Your task to perform on an android device: change the upload size in google photos Image 0: 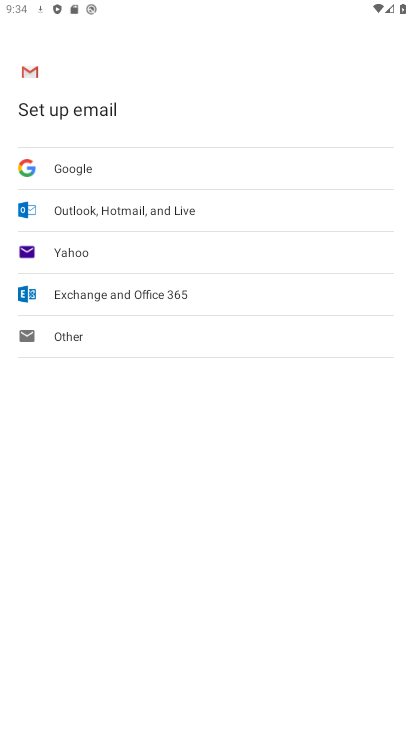
Step 0: press home button
Your task to perform on an android device: change the upload size in google photos Image 1: 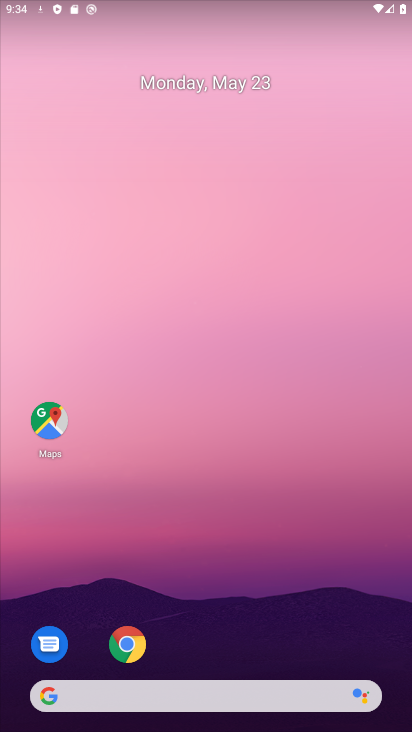
Step 1: drag from (250, 719) to (172, 93)
Your task to perform on an android device: change the upload size in google photos Image 2: 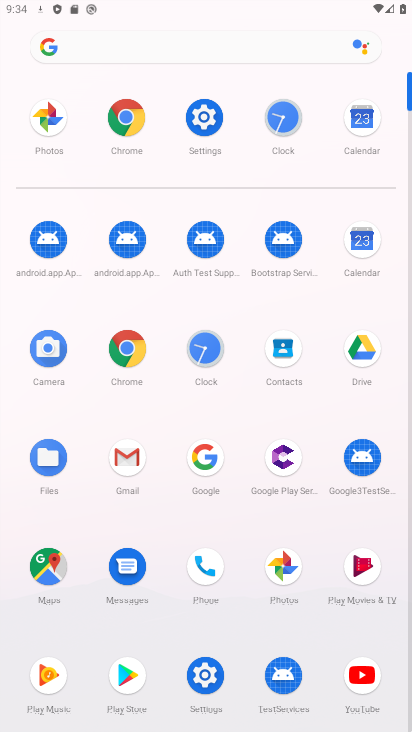
Step 2: click (50, 128)
Your task to perform on an android device: change the upload size in google photos Image 3: 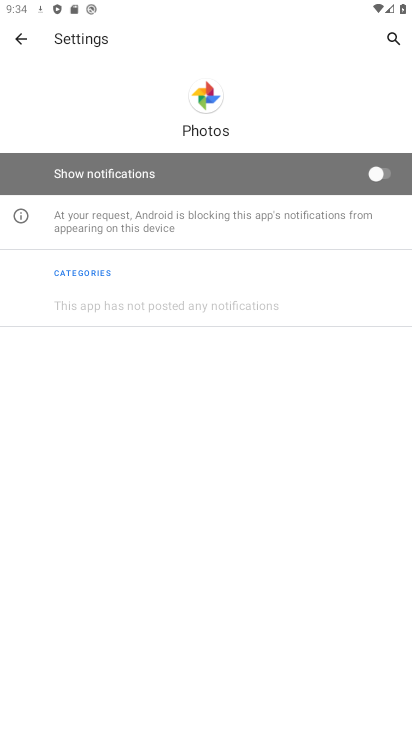
Step 3: click (9, 40)
Your task to perform on an android device: change the upload size in google photos Image 4: 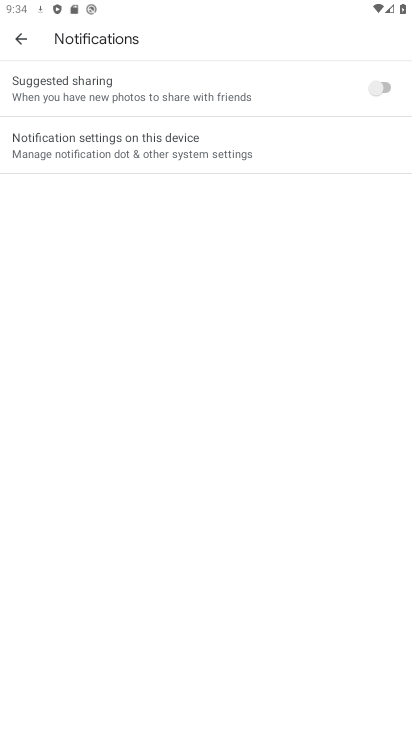
Step 4: click (32, 39)
Your task to perform on an android device: change the upload size in google photos Image 5: 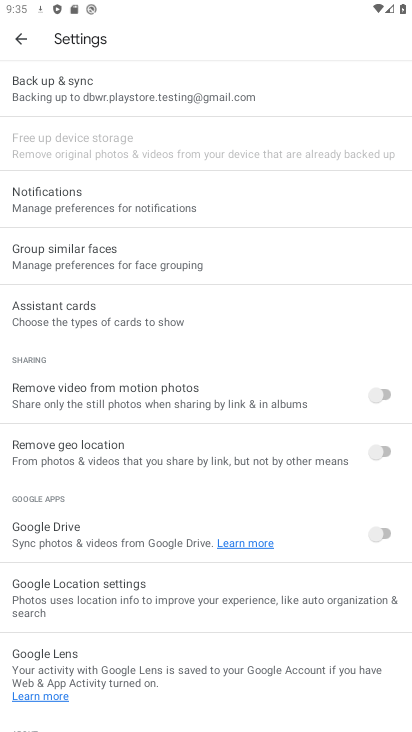
Step 5: click (115, 105)
Your task to perform on an android device: change the upload size in google photos Image 6: 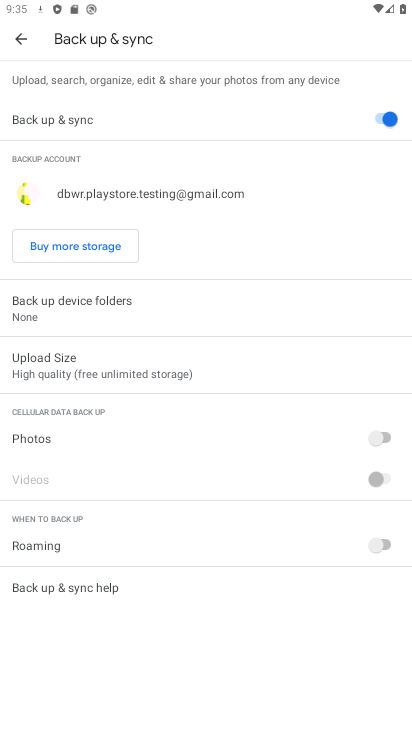
Step 6: click (79, 364)
Your task to perform on an android device: change the upload size in google photos Image 7: 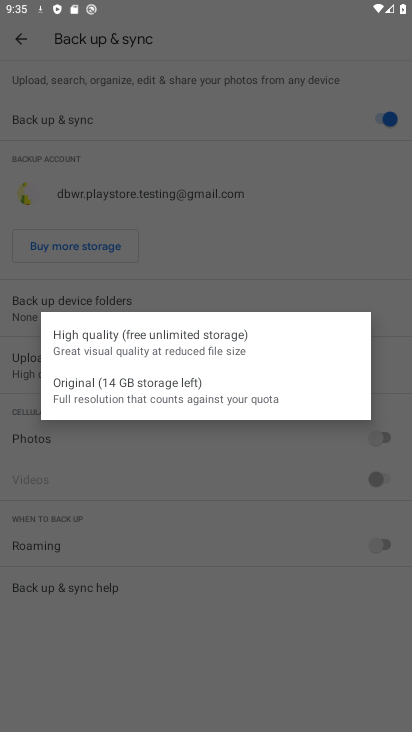
Step 7: task complete